Your task to perform on an android device: search for starred emails in the gmail app Image 0: 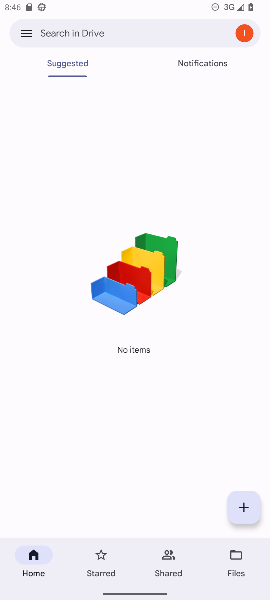
Step 0: press back button
Your task to perform on an android device: search for starred emails in the gmail app Image 1: 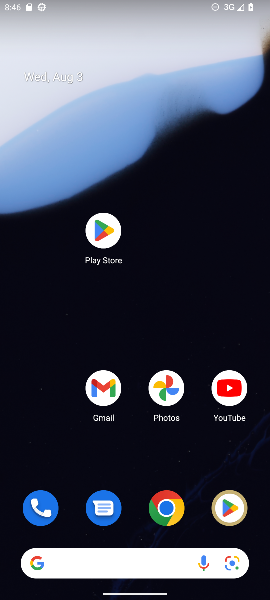
Step 1: drag from (148, 539) to (148, 36)
Your task to perform on an android device: search for starred emails in the gmail app Image 2: 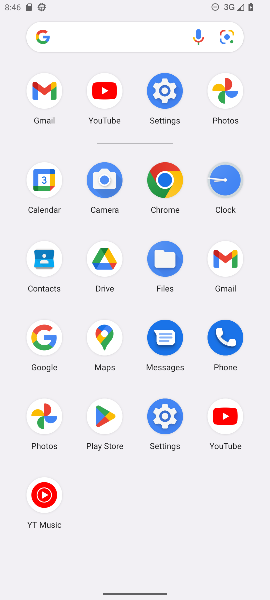
Step 2: click (226, 262)
Your task to perform on an android device: search for starred emails in the gmail app Image 3: 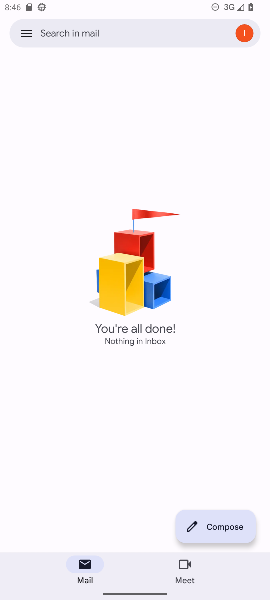
Step 3: click (22, 38)
Your task to perform on an android device: search for starred emails in the gmail app Image 4: 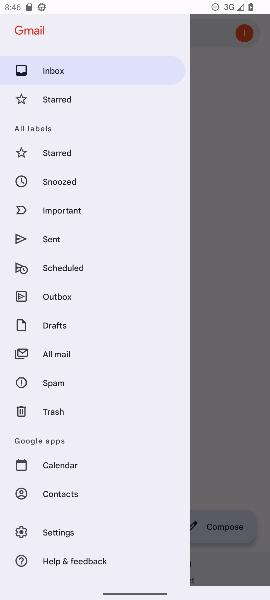
Step 4: click (55, 156)
Your task to perform on an android device: search for starred emails in the gmail app Image 5: 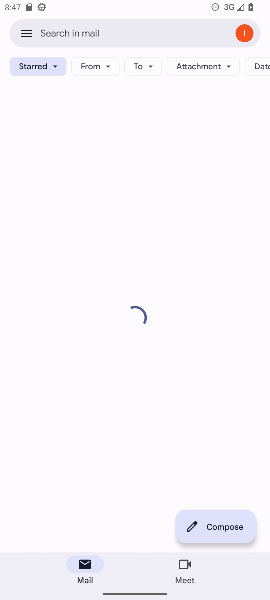
Step 5: task complete